Your task to perform on an android device: Go to location settings Image 0: 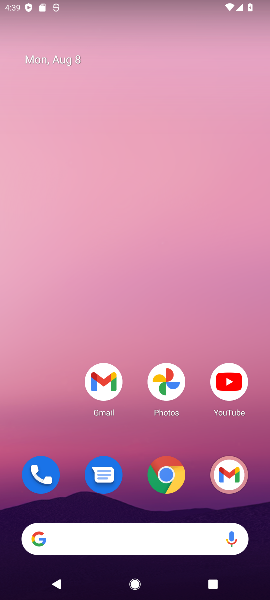
Step 0: press home button
Your task to perform on an android device: Go to location settings Image 1: 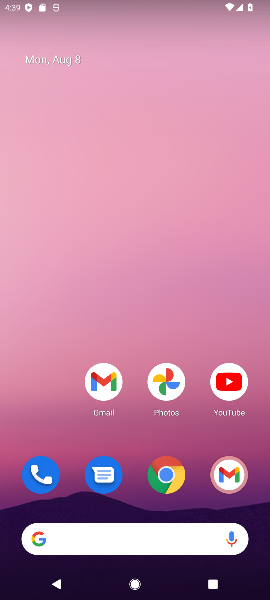
Step 1: drag from (63, 433) to (61, 177)
Your task to perform on an android device: Go to location settings Image 2: 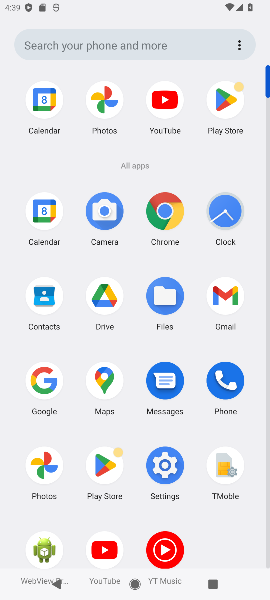
Step 2: click (162, 469)
Your task to perform on an android device: Go to location settings Image 3: 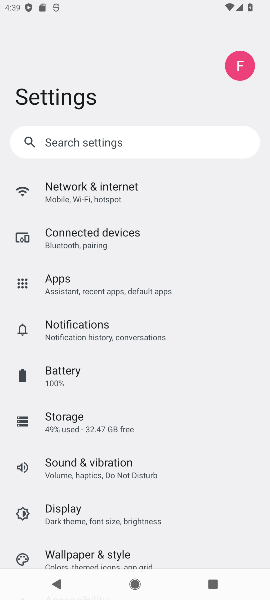
Step 3: drag from (226, 415) to (225, 316)
Your task to perform on an android device: Go to location settings Image 4: 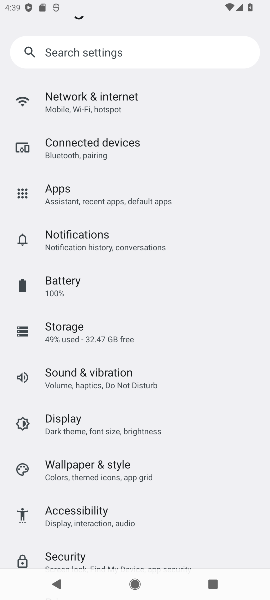
Step 4: drag from (212, 442) to (215, 299)
Your task to perform on an android device: Go to location settings Image 5: 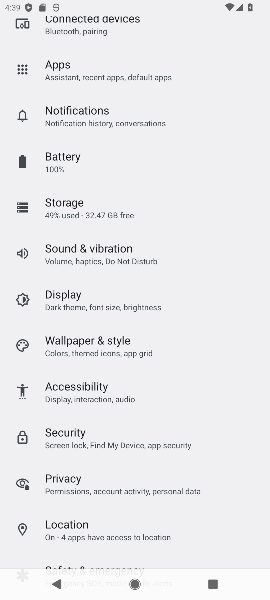
Step 5: drag from (225, 431) to (227, 323)
Your task to perform on an android device: Go to location settings Image 6: 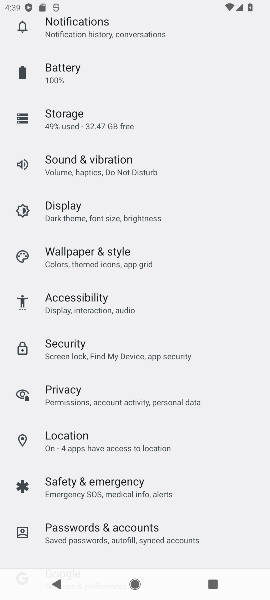
Step 6: drag from (226, 442) to (229, 295)
Your task to perform on an android device: Go to location settings Image 7: 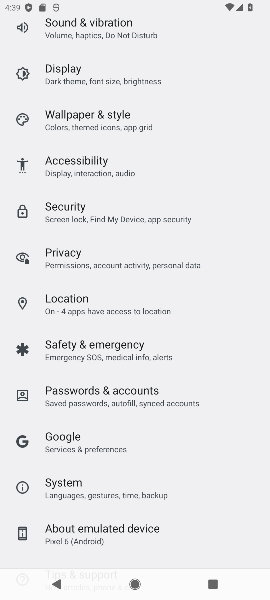
Step 7: drag from (240, 426) to (236, 280)
Your task to perform on an android device: Go to location settings Image 8: 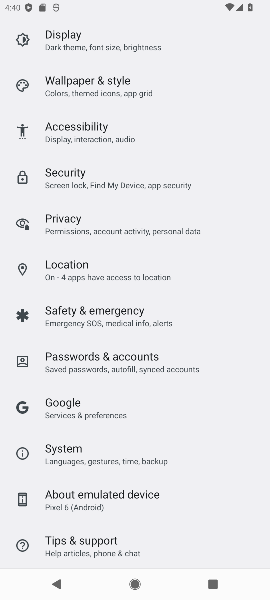
Step 8: click (152, 269)
Your task to perform on an android device: Go to location settings Image 9: 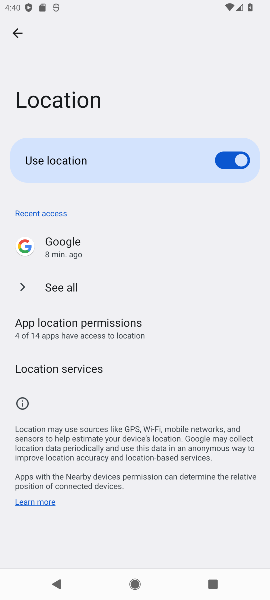
Step 9: task complete